Your task to perform on an android device: Open Android settings Image 0: 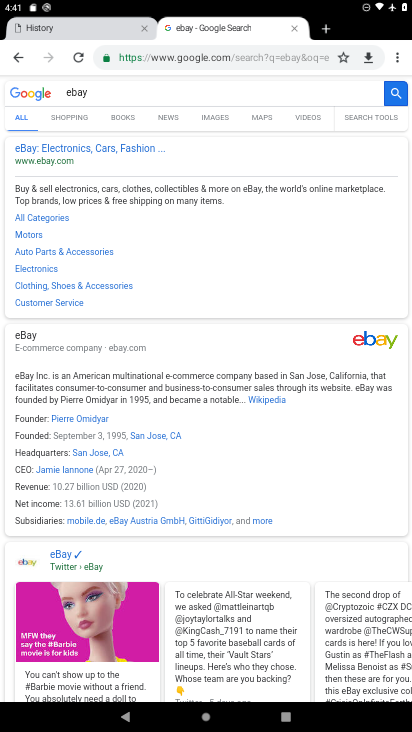
Step 0: press home button
Your task to perform on an android device: Open Android settings Image 1: 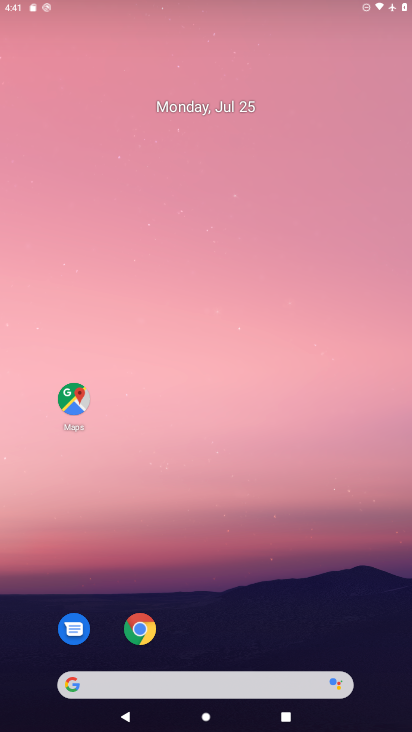
Step 1: drag from (254, 556) to (308, 0)
Your task to perform on an android device: Open Android settings Image 2: 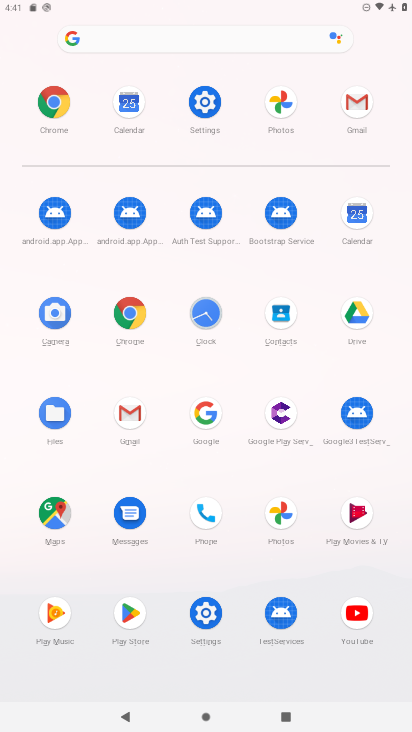
Step 2: click (207, 114)
Your task to perform on an android device: Open Android settings Image 3: 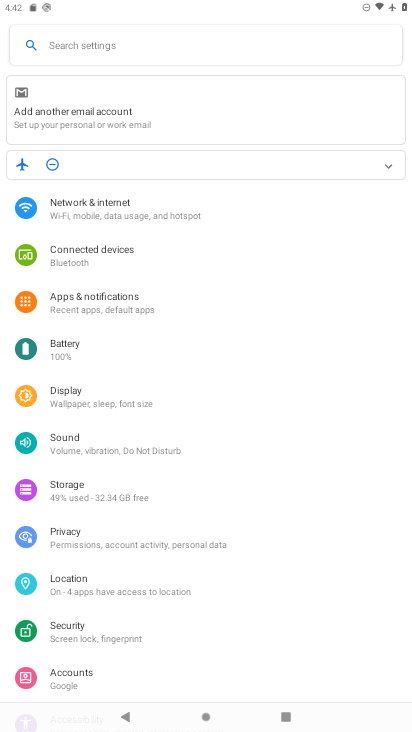
Step 3: drag from (132, 669) to (180, 180)
Your task to perform on an android device: Open Android settings Image 4: 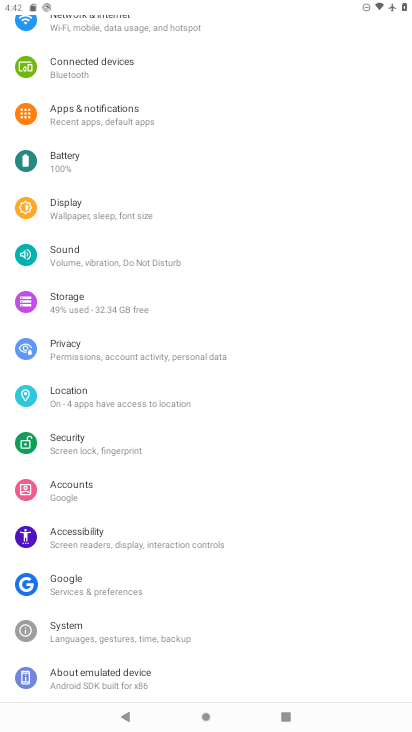
Step 4: click (114, 677)
Your task to perform on an android device: Open Android settings Image 5: 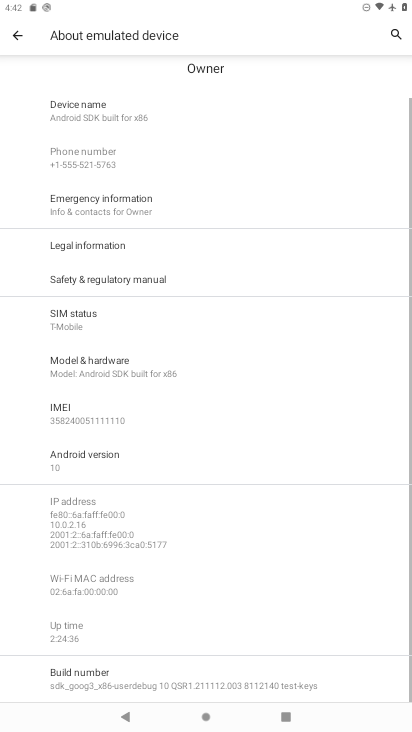
Step 5: click (146, 471)
Your task to perform on an android device: Open Android settings Image 6: 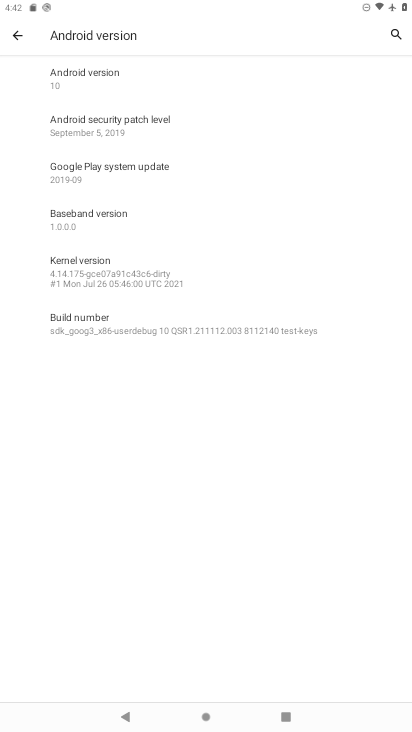
Step 6: task complete